Your task to perform on an android device: Open Reddit.com Image 0: 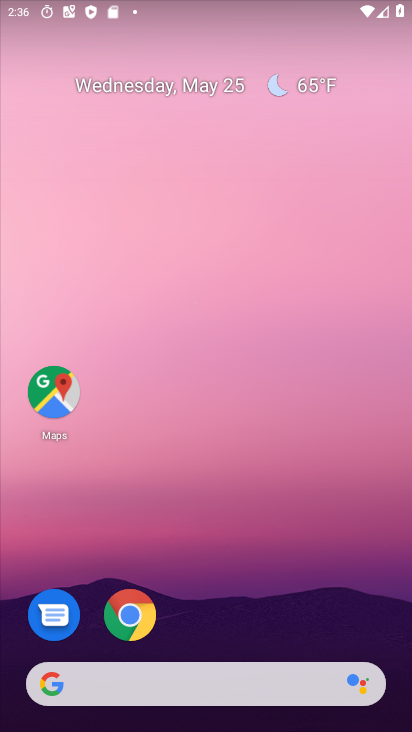
Step 0: click (125, 614)
Your task to perform on an android device: Open Reddit.com Image 1: 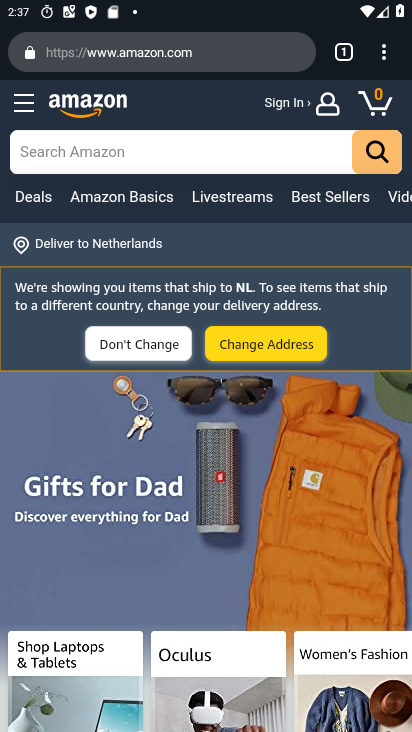
Step 1: click (226, 52)
Your task to perform on an android device: Open Reddit.com Image 2: 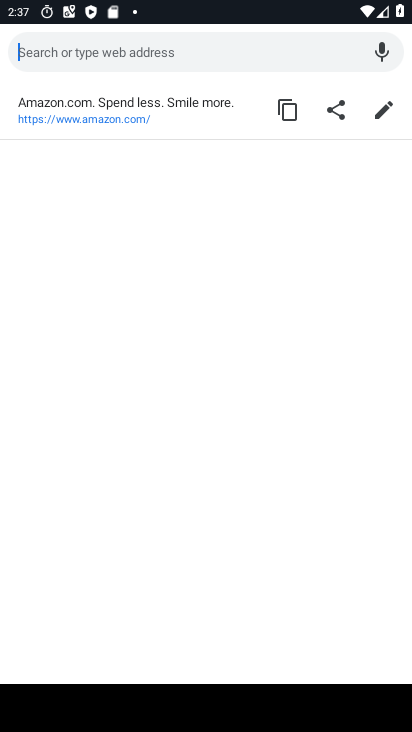
Step 2: type "Reddit.com"
Your task to perform on an android device: Open Reddit.com Image 3: 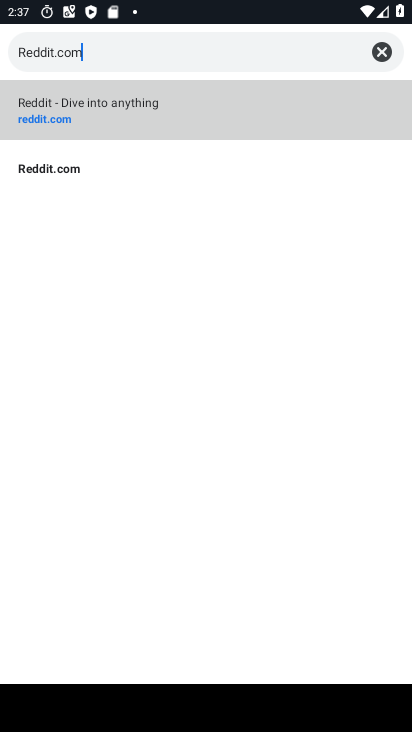
Step 3: click (24, 160)
Your task to perform on an android device: Open Reddit.com Image 4: 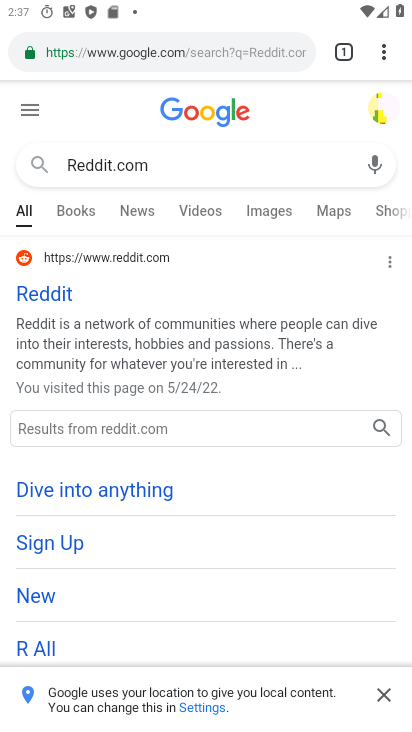
Step 4: task complete